Your task to perform on an android device: Do I have any events this weekend? Image 0: 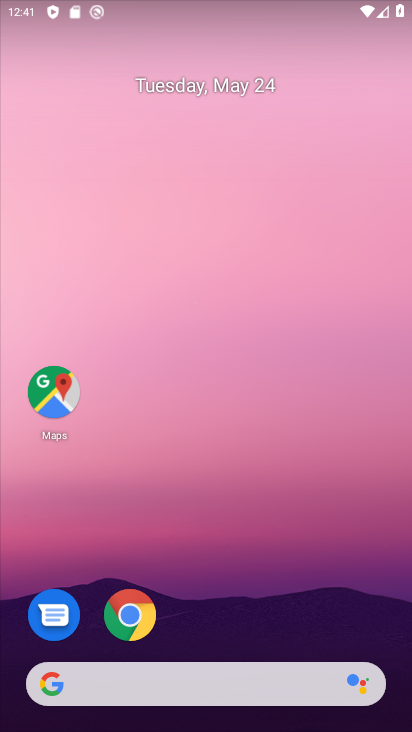
Step 0: drag from (209, 644) to (241, 187)
Your task to perform on an android device: Do I have any events this weekend? Image 1: 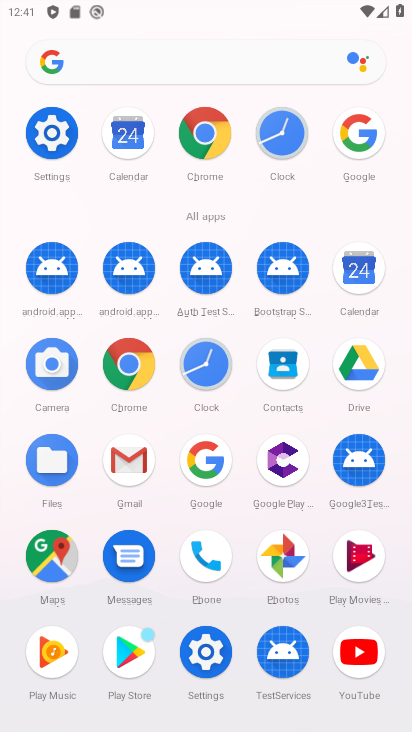
Step 1: click (358, 265)
Your task to perform on an android device: Do I have any events this weekend? Image 2: 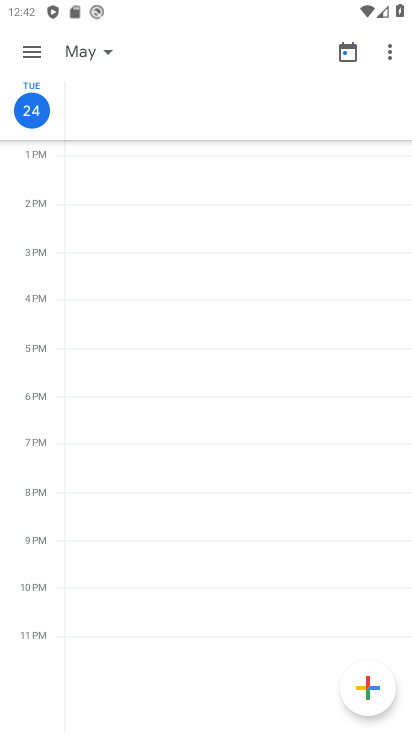
Step 2: click (111, 52)
Your task to perform on an android device: Do I have any events this weekend? Image 3: 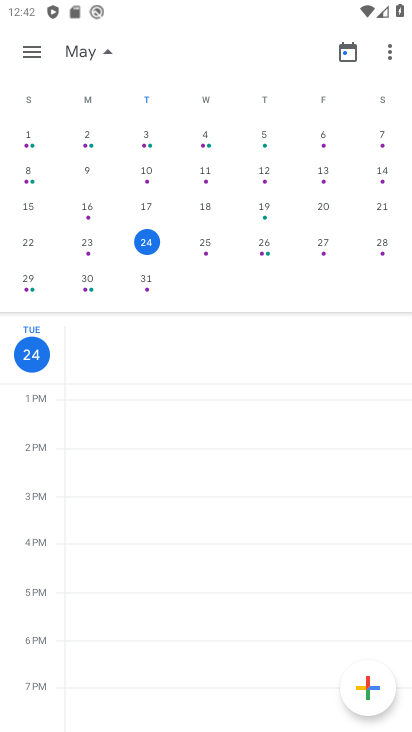
Step 3: click (30, 66)
Your task to perform on an android device: Do I have any events this weekend? Image 4: 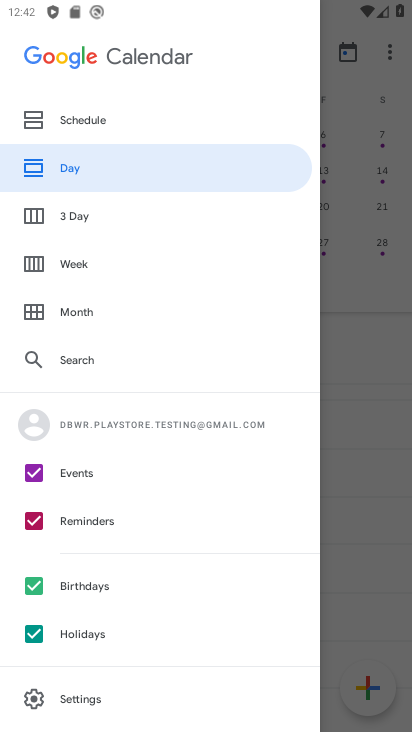
Step 4: click (71, 261)
Your task to perform on an android device: Do I have any events this weekend? Image 5: 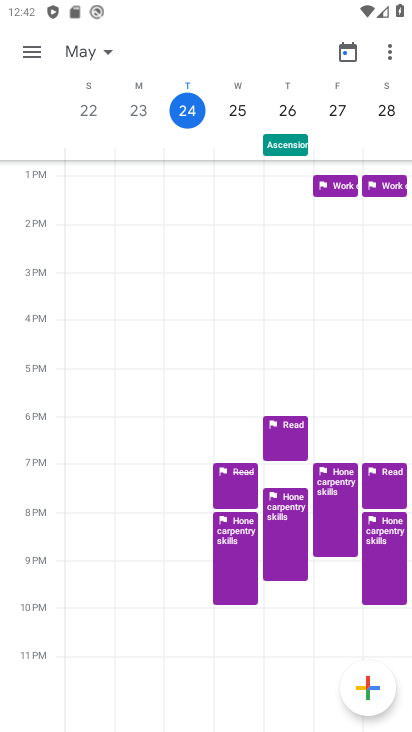
Step 5: click (186, 106)
Your task to perform on an android device: Do I have any events this weekend? Image 6: 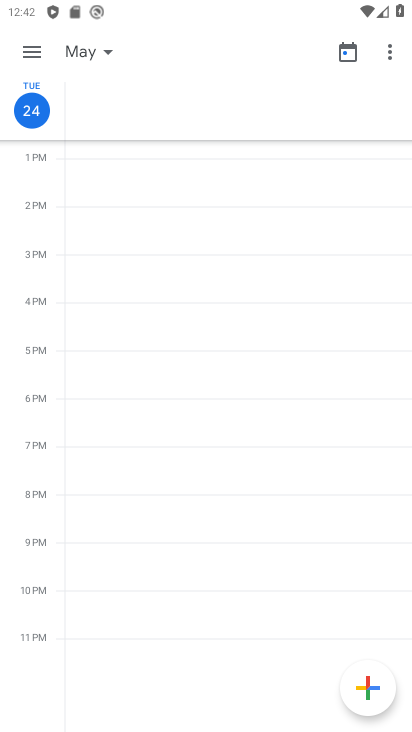
Step 6: click (54, 122)
Your task to perform on an android device: Do I have any events this weekend? Image 7: 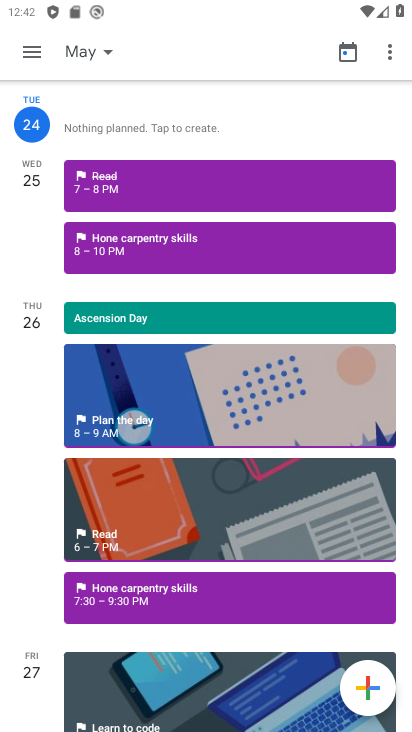
Step 7: task complete